Your task to perform on an android device: Go to Reddit.com Image 0: 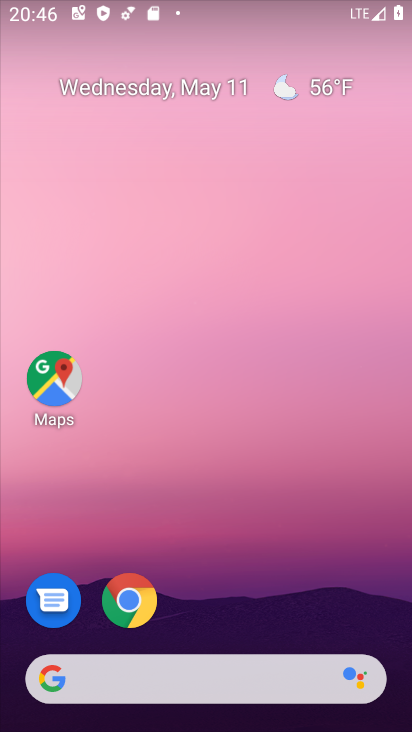
Step 0: click (132, 600)
Your task to perform on an android device: Go to Reddit.com Image 1: 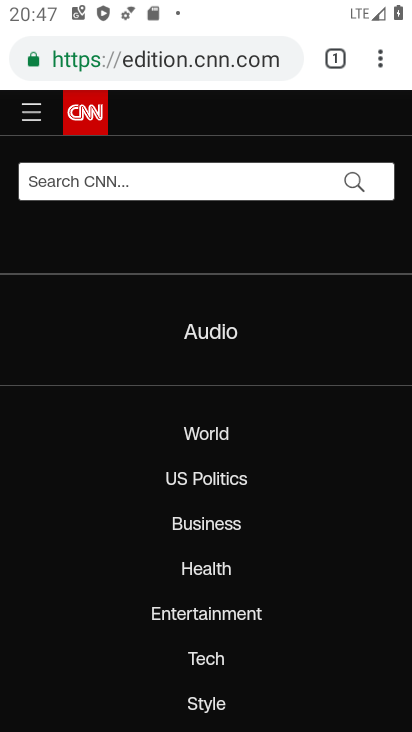
Step 1: click (246, 56)
Your task to perform on an android device: Go to Reddit.com Image 2: 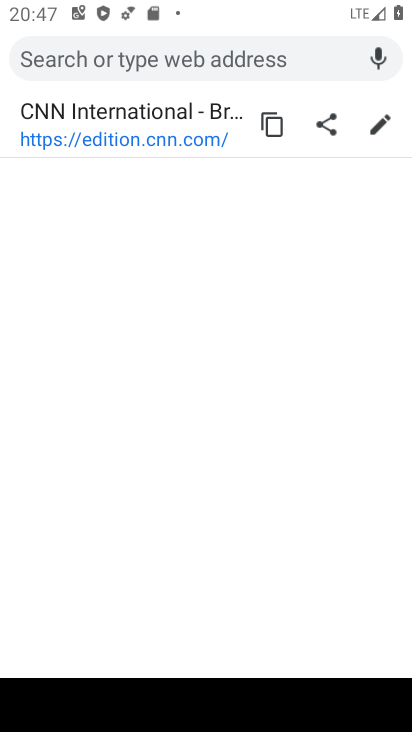
Step 2: type "Reddit.com"
Your task to perform on an android device: Go to Reddit.com Image 3: 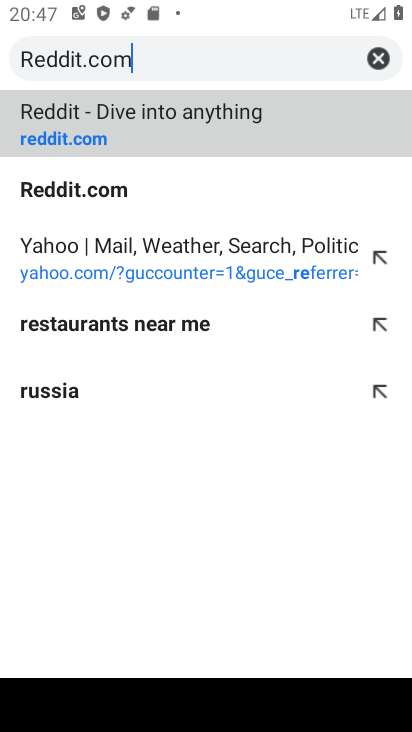
Step 3: type ""
Your task to perform on an android device: Go to Reddit.com Image 4: 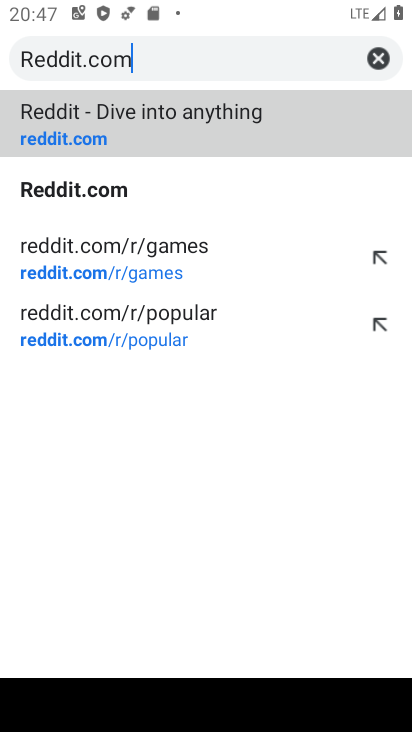
Step 4: click (76, 191)
Your task to perform on an android device: Go to Reddit.com Image 5: 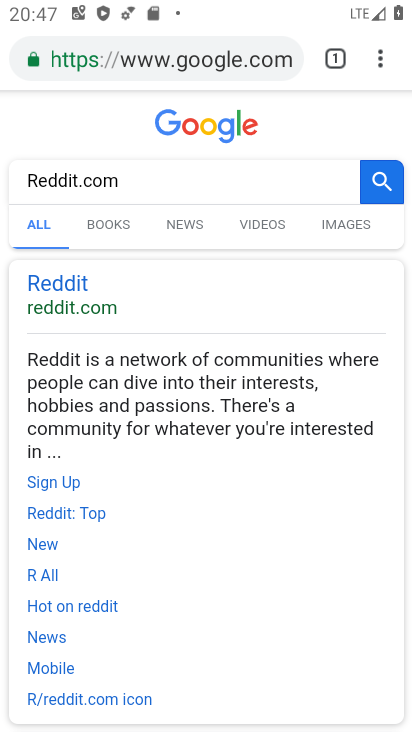
Step 5: click (85, 300)
Your task to perform on an android device: Go to Reddit.com Image 6: 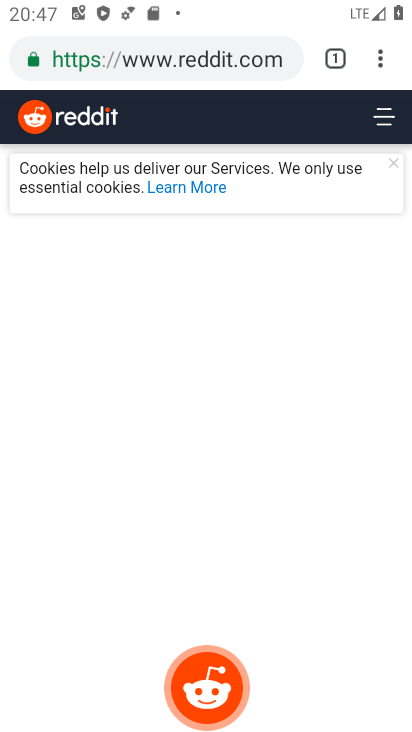
Step 6: task complete